Your task to perform on an android device: change the clock display to analog Image 0: 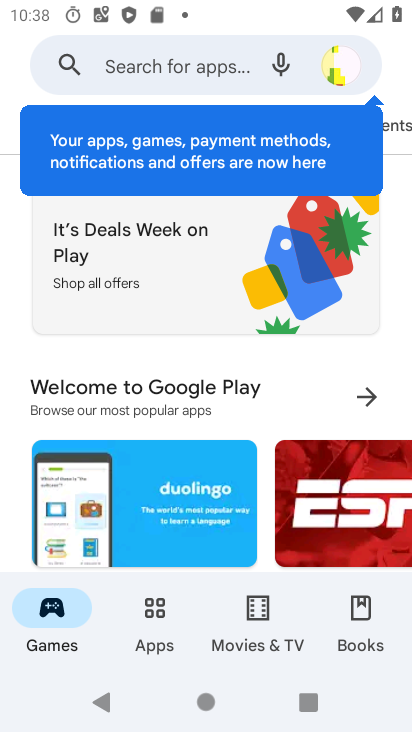
Step 0: press home button
Your task to perform on an android device: change the clock display to analog Image 1: 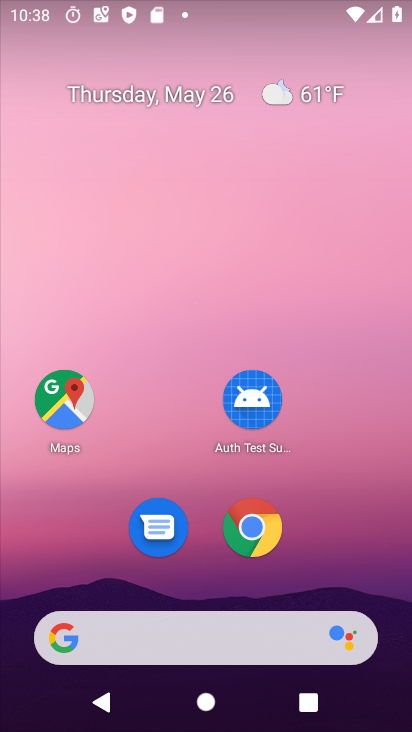
Step 1: drag from (344, 527) to (362, 113)
Your task to perform on an android device: change the clock display to analog Image 2: 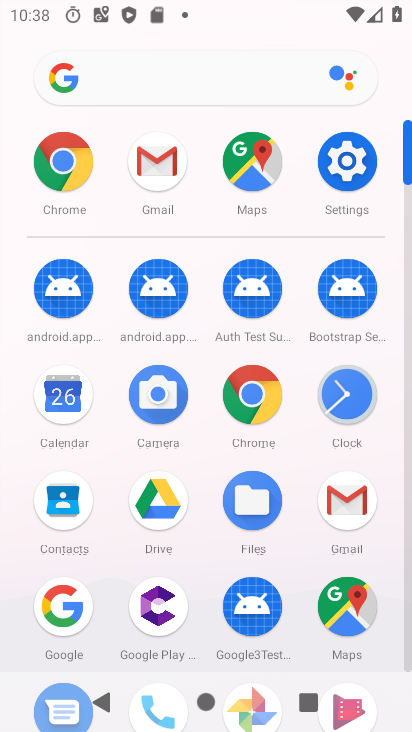
Step 2: click (354, 408)
Your task to perform on an android device: change the clock display to analog Image 3: 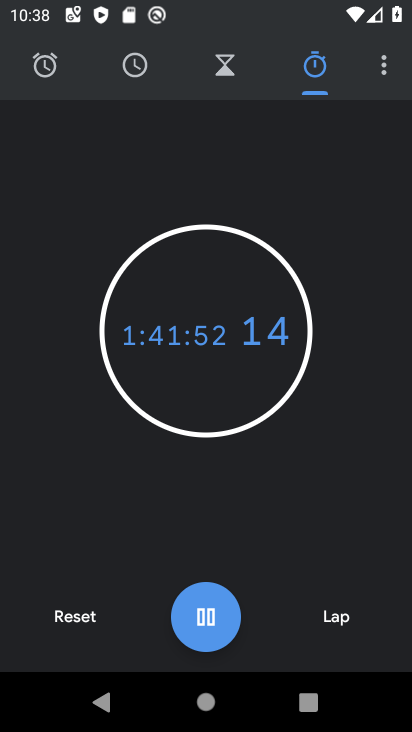
Step 3: click (377, 80)
Your task to perform on an android device: change the clock display to analog Image 4: 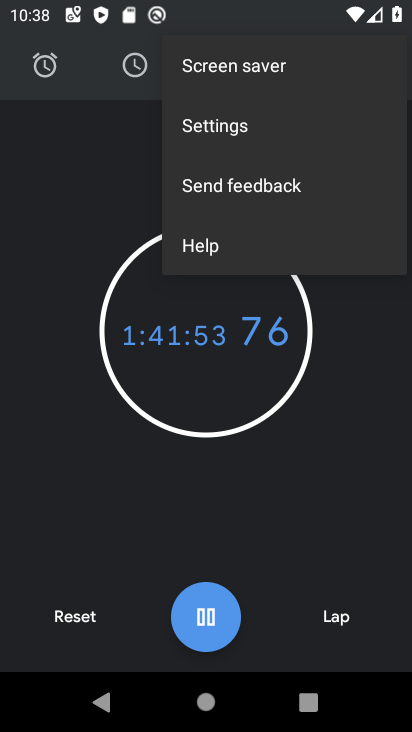
Step 4: click (267, 136)
Your task to perform on an android device: change the clock display to analog Image 5: 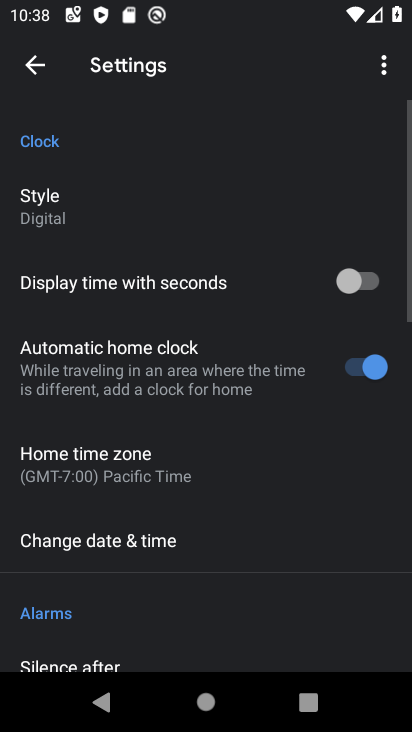
Step 5: click (76, 221)
Your task to perform on an android device: change the clock display to analog Image 6: 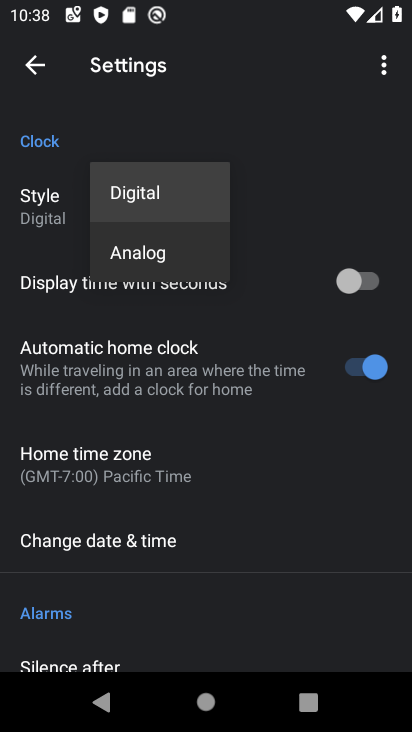
Step 6: click (133, 269)
Your task to perform on an android device: change the clock display to analog Image 7: 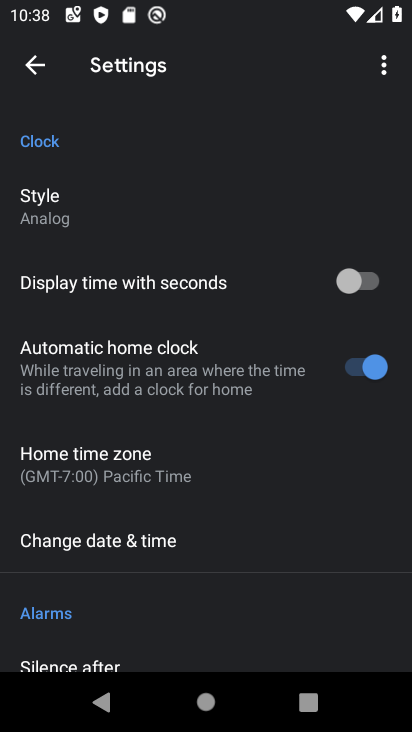
Step 7: task complete